Your task to perform on an android device: set the stopwatch Image 0: 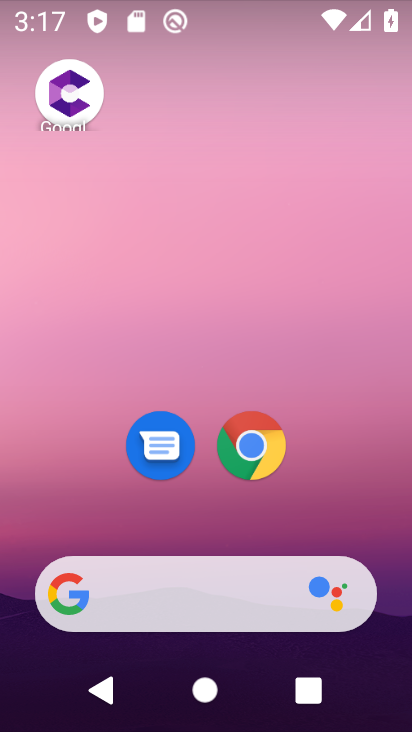
Step 0: drag from (231, 521) to (147, 2)
Your task to perform on an android device: set the stopwatch Image 1: 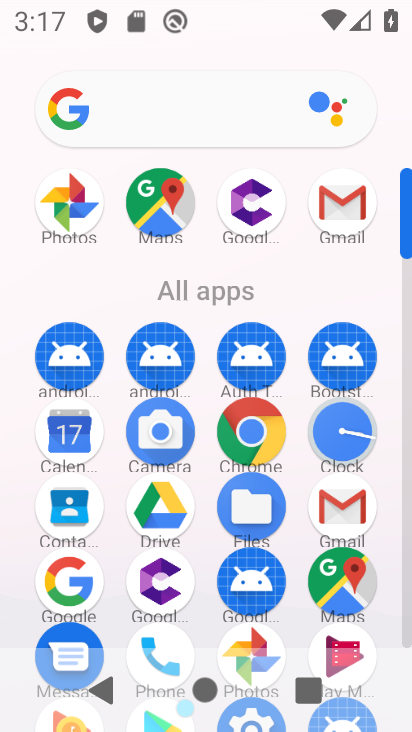
Step 1: click (340, 433)
Your task to perform on an android device: set the stopwatch Image 2: 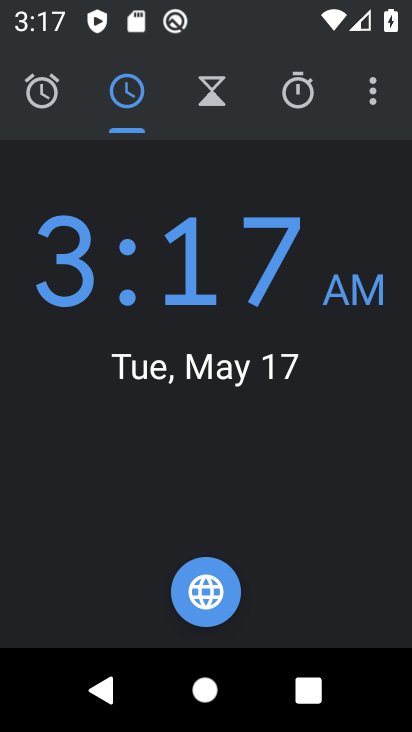
Step 2: click (284, 83)
Your task to perform on an android device: set the stopwatch Image 3: 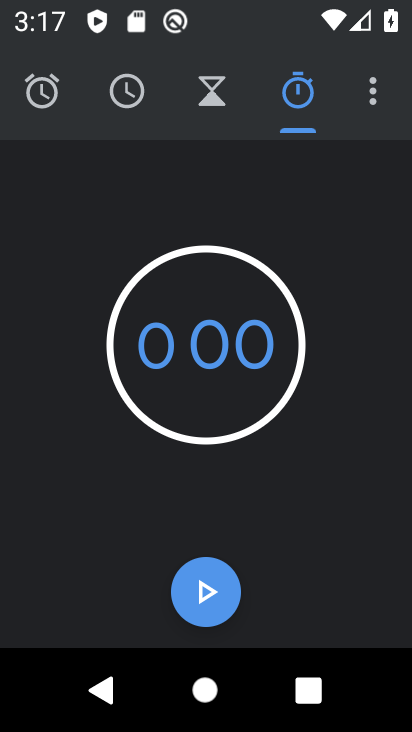
Step 3: click (228, 591)
Your task to perform on an android device: set the stopwatch Image 4: 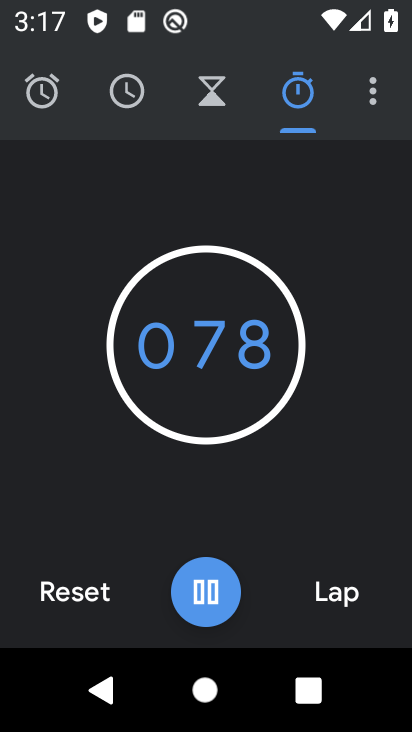
Step 4: click (228, 591)
Your task to perform on an android device: set the stopwatch Image 5: 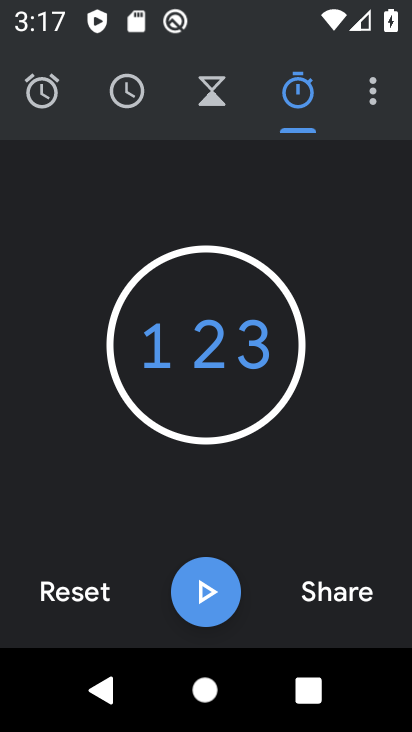
Step 5: task complete